Your task to perform on an android device: move an email to a new category in the gmail app Image 0: 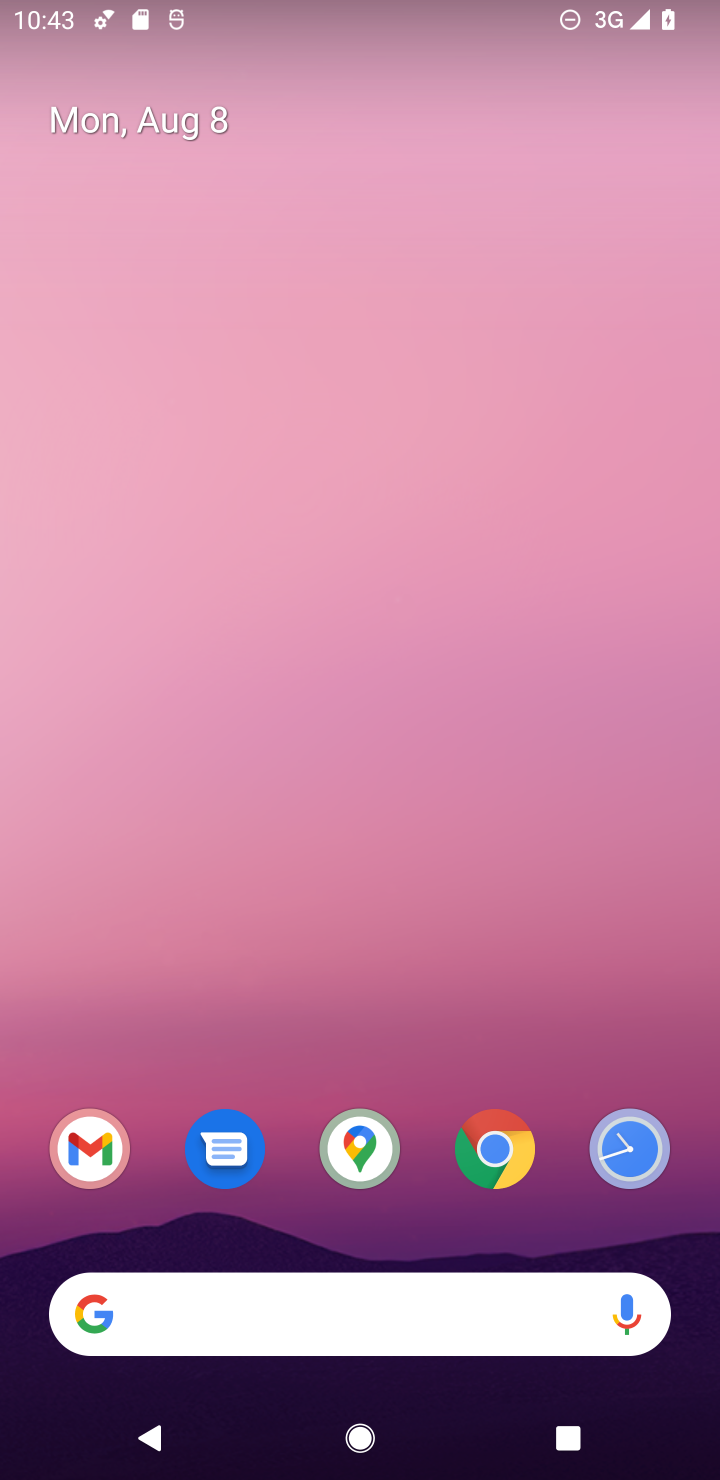
Step 0: drag from (383, 922) to (383, 457)
Your task to perform on an android device: move an email to a new category in the gmail app Image 1: 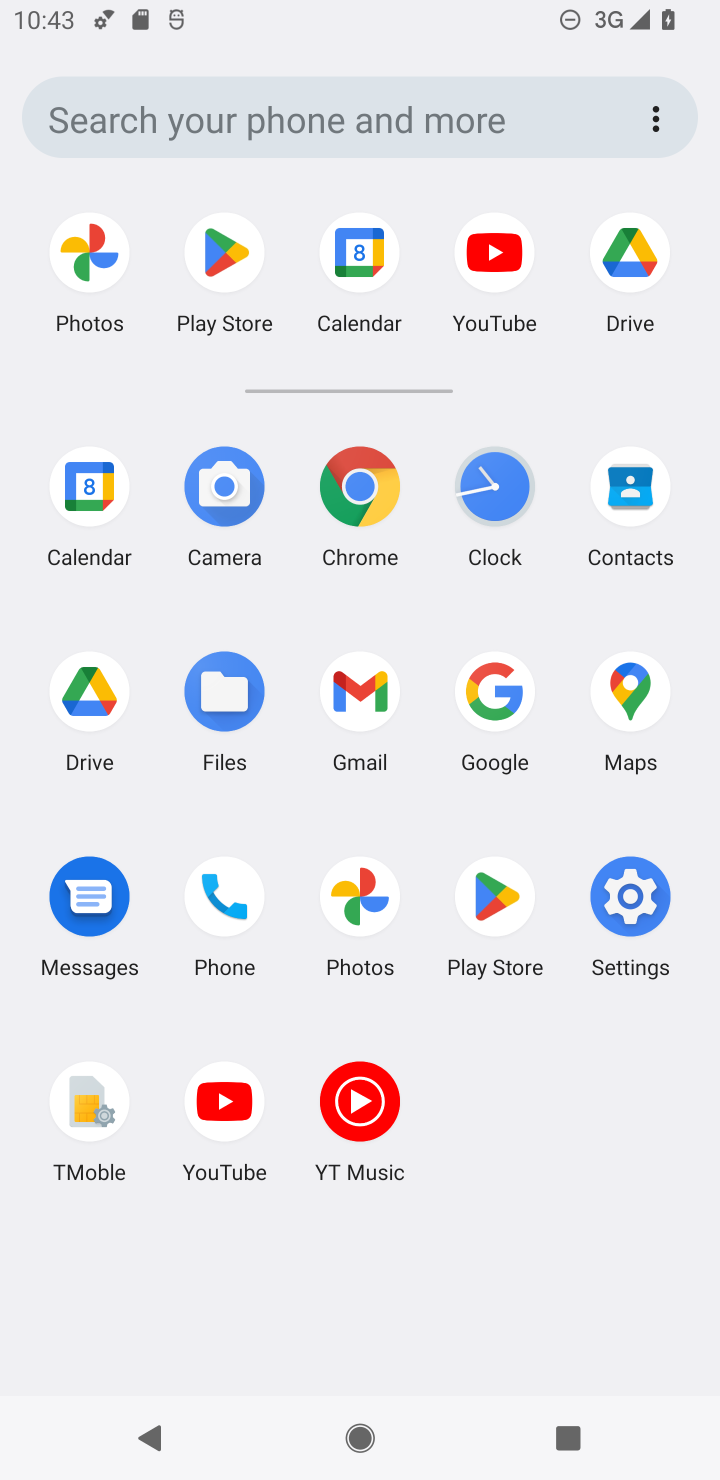
Step 1: click (340, 684)
Your task to perform on an android device: move an email to a new category in the gmail app Image 2: 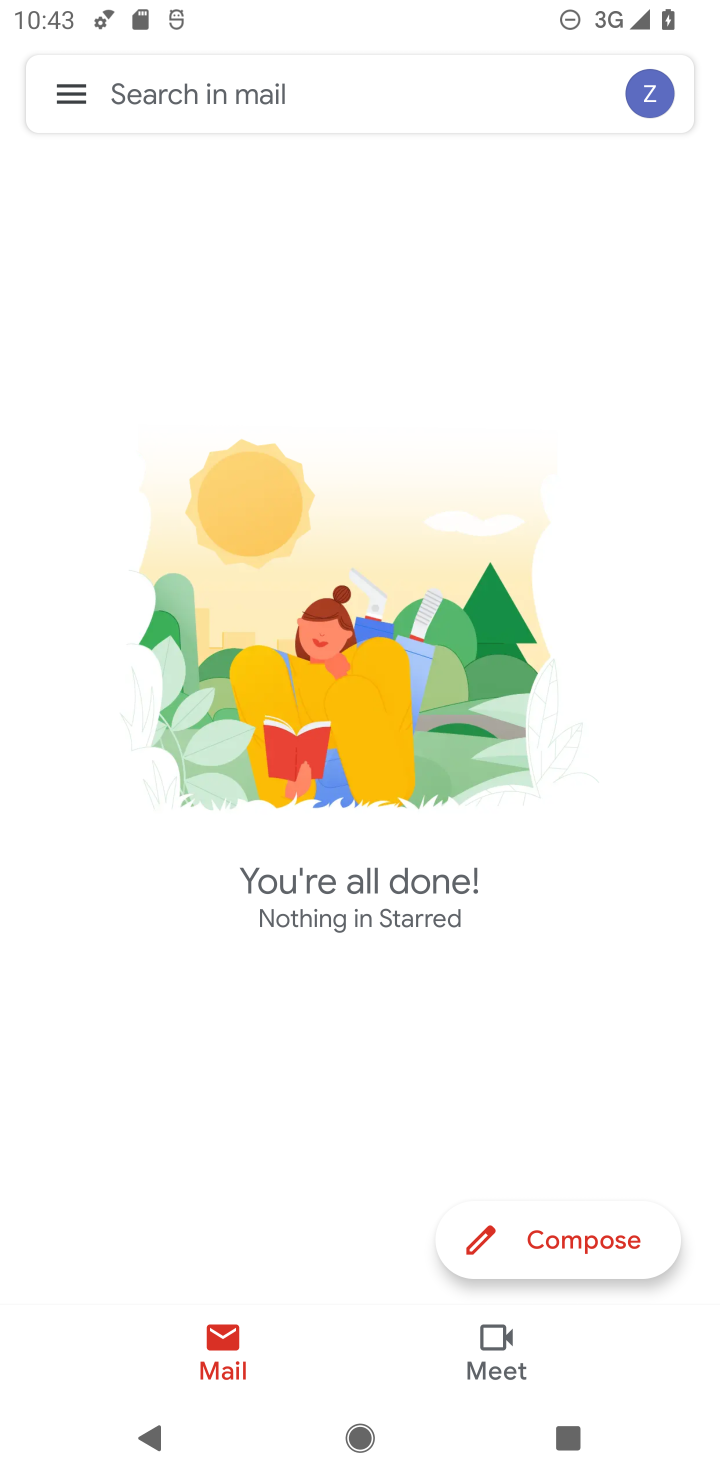
Step 2: drag from (63, 96) to (197, 96)
Your task to perform on an android device: move an email to a new category in the gmail app Image 3: 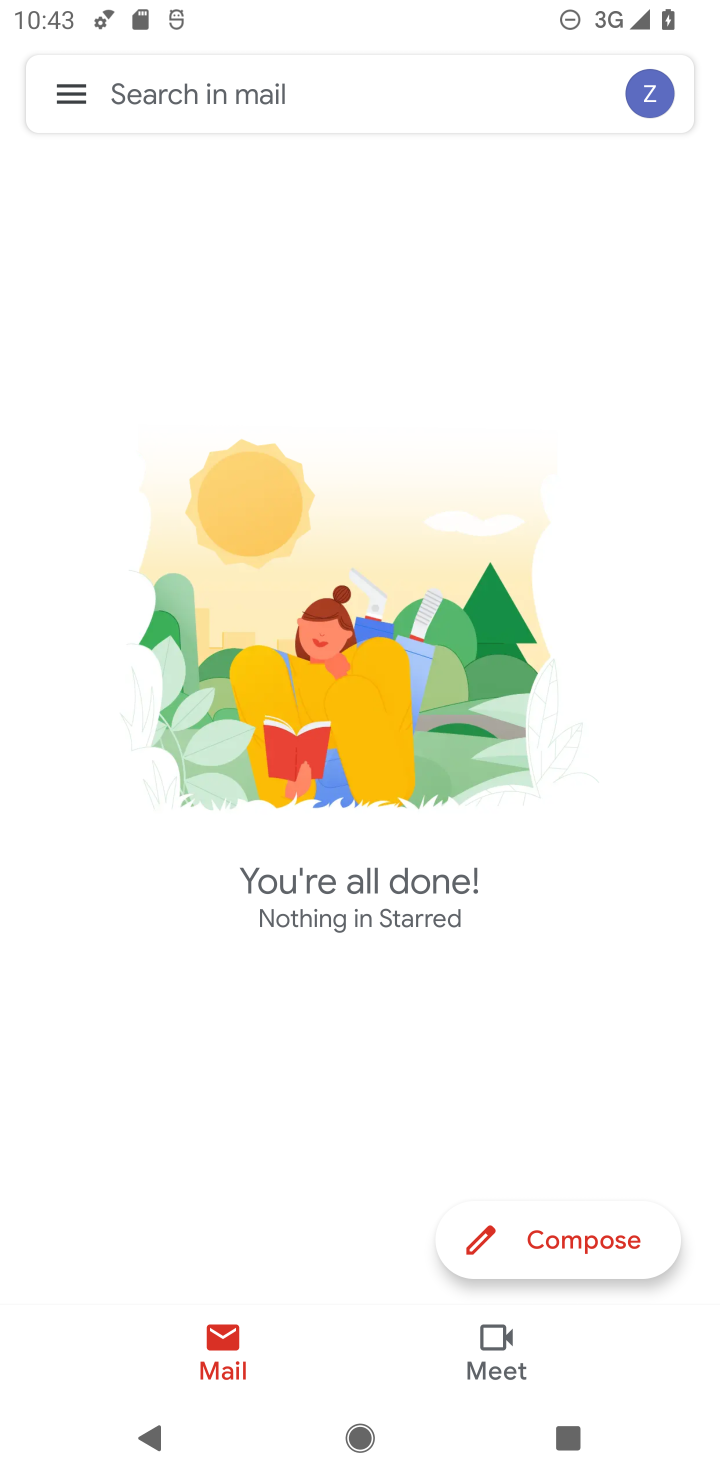
Step 3: click (84, 94)
Your task to perform on an android device: move an email to a new category in the gmail app Image 4: 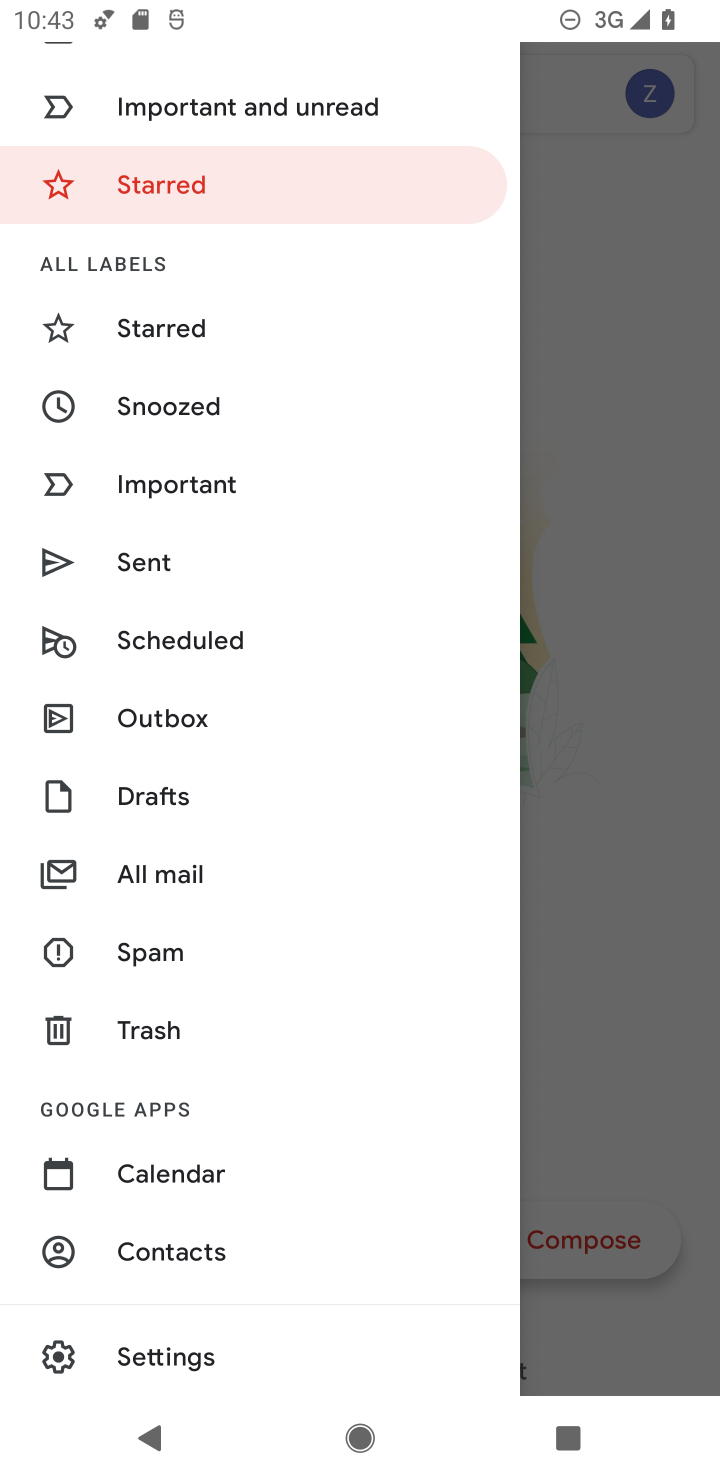
Step 4: task complete